Your task to perform on an android device: What's on my calendar tomorrow? Image 0: 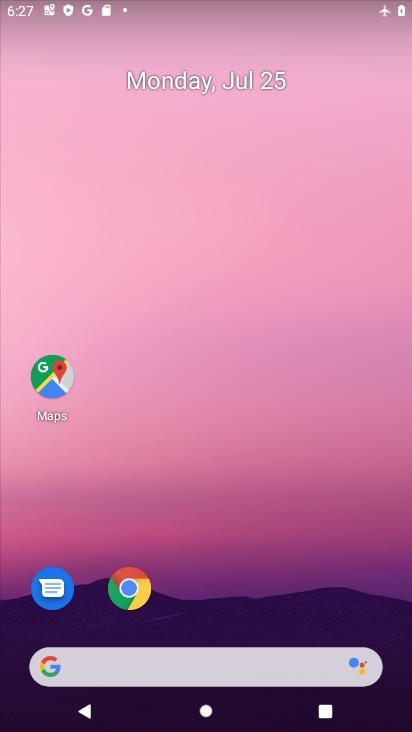
Step 0: drag from (303, 597) to (390, 12)
Your task to perform on an android device: What's on my calendar tomorrow? Image 1: 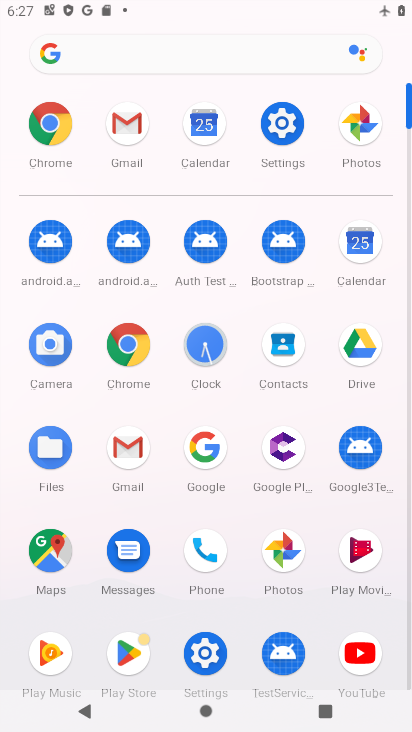
Step 1: click (358, 256)
Your task to perform on an android device: What's on my calendar tomorrow? Image 2: 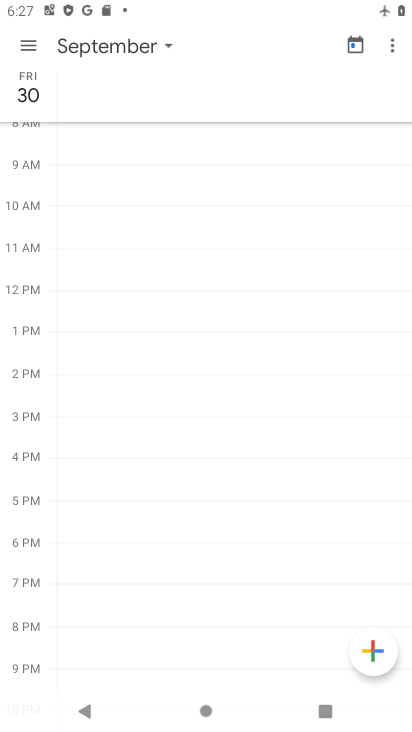
Step 2: task complete